Your task to perform on an android device: read, delete, or share a saved page in the chrome app Image 0: 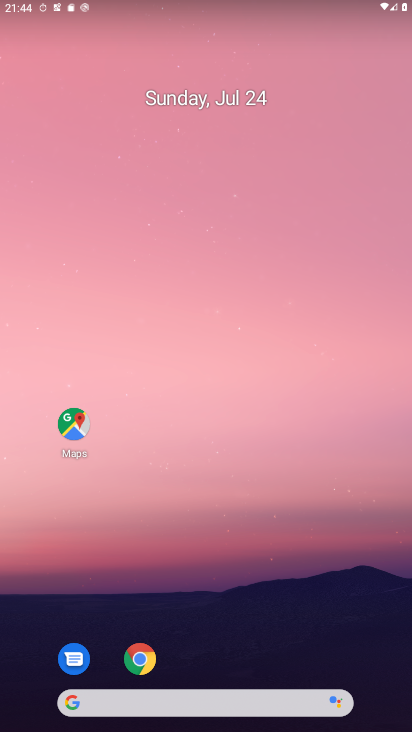
Step 0: click (147, 655)
Your task to perform on an android device: read, delete, or share a saved page in the chrome app Image 1: 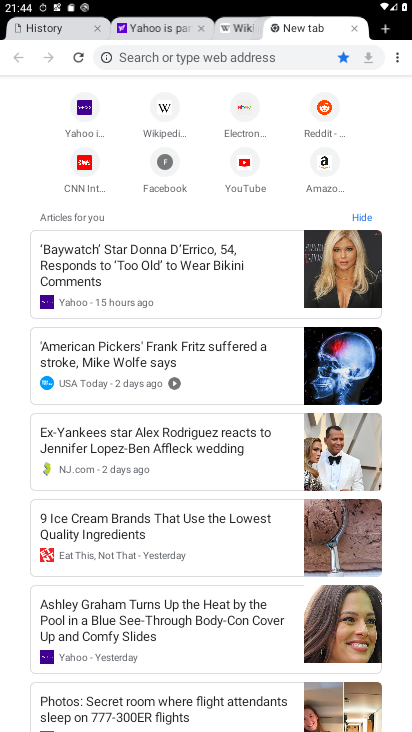
Step 1: click (398, 60)
Your task to perform on an android device: read, delete, or share a saved page in the chrome app Image 2: 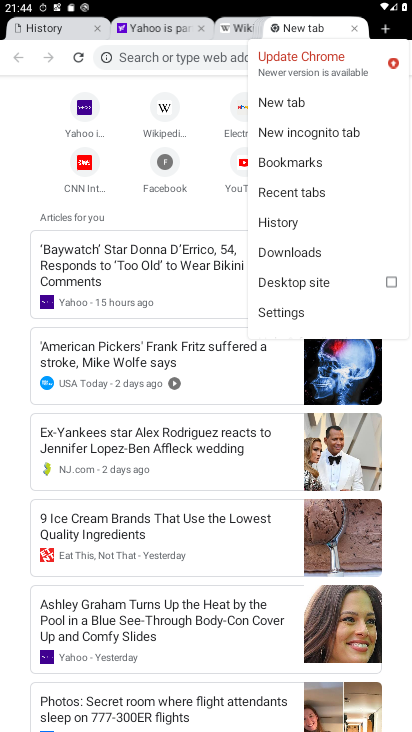
Step 2: click (290, 253)
Your task to perform on an android device: read, delete, or share a saved page in the chrome app Image 3: 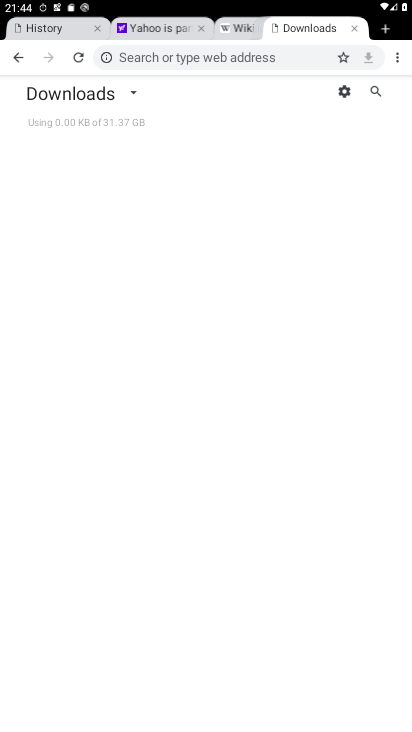
Step 3: click (134, 92)
Your task to perform on an android device: read, delete, or share a saved page in the chrome app Image 4: 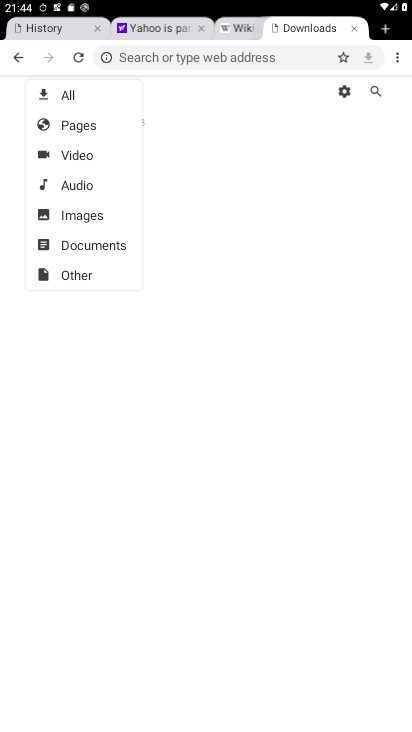
Step 4: click (75, 126)
Your task to perform on an android device: read, delete, or share a saved page in the chrome app Image 5: 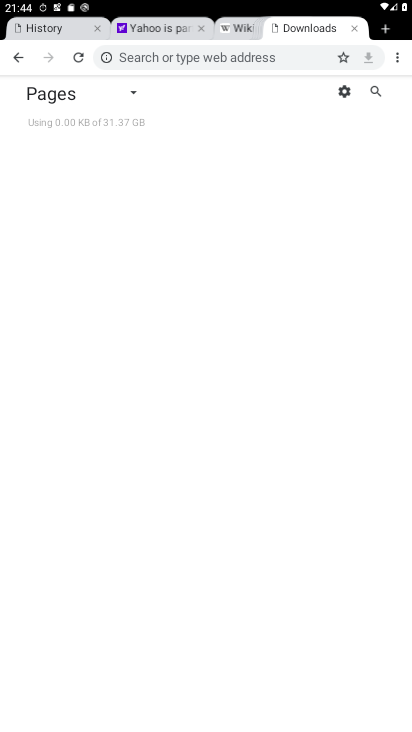
Step 5: task complete